Your task to perform on an android device: Open Reddit.com Image 0: 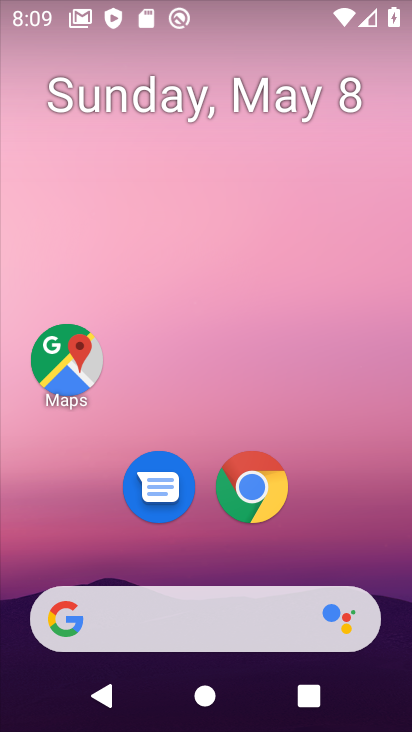
Step 0: drag from (322, 552) to (295, 243)
Your task to perform on an android device: Open Reddit.com Image 1: 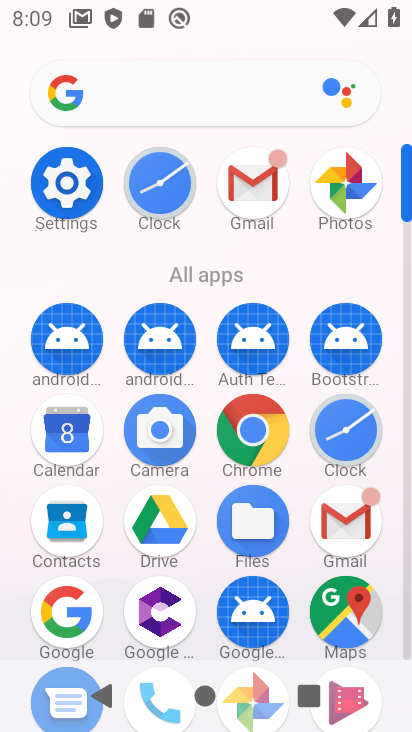
Step 1: click (249, 417)
Your task to perform on an android device: Open Reddit.com Image 2: 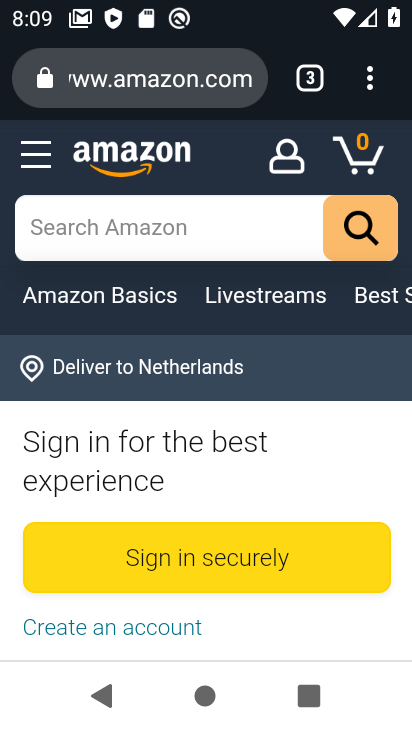
Step 2: click (193, 99)
Your task to perform on an android device: Open Reddit.com Image 3: 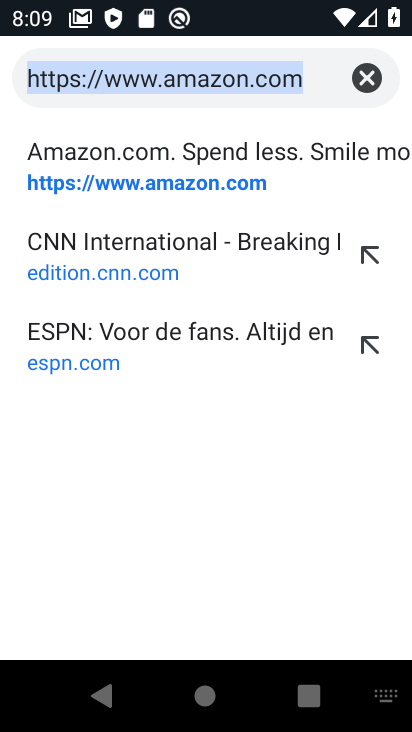
Step 3: type "reddit"
Your task to perform on an android device: Open Reddit.com Image 4: 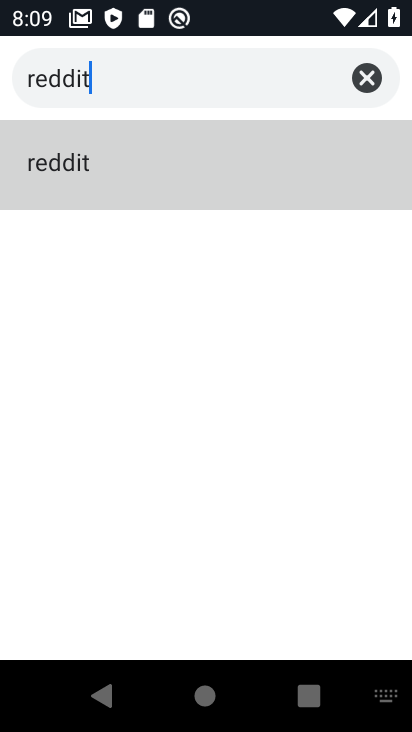
Step 4: click (177, 146)
Your task to perform on an android device: Open Reddit.com Image 5: 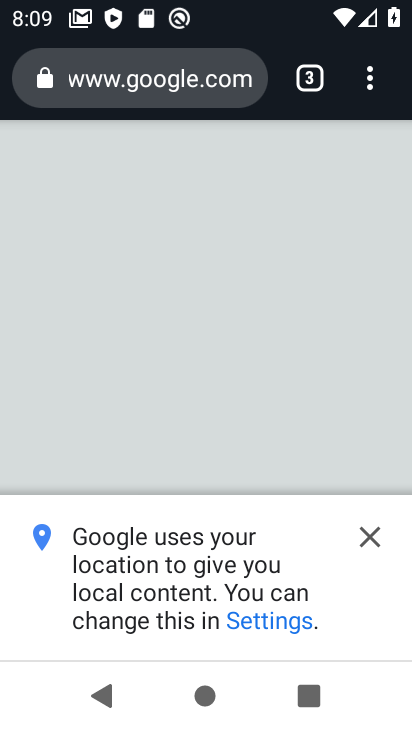
Step 5: click (380, 536)
Your task to perform on an android device: Open Reddit.com Image 6: 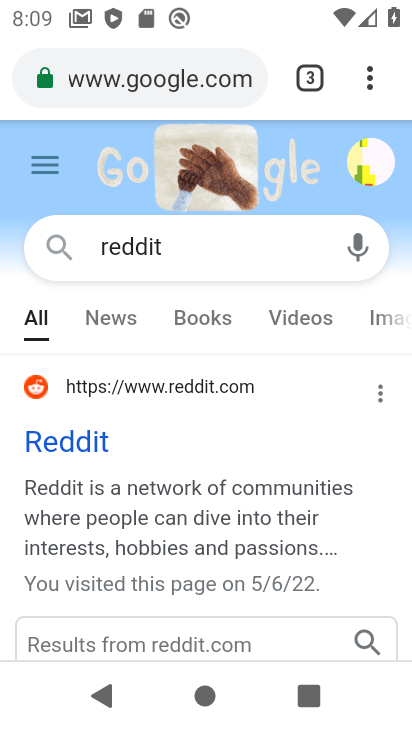
Step 6: click (54, 440)
Your task to perform on an android device: Open Reddit.com Image 7: 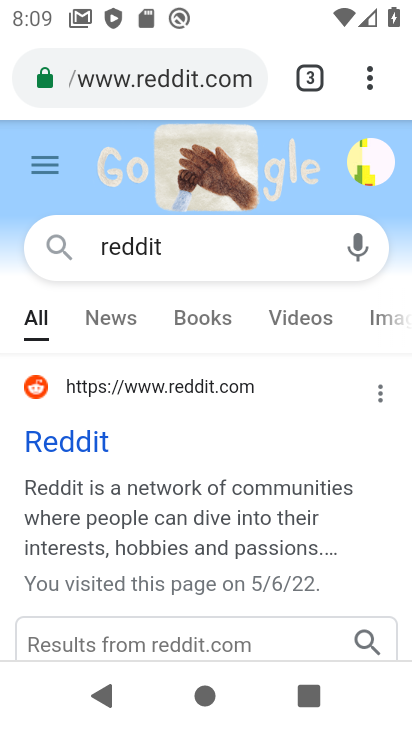
Step 7: task complete